Your task to perform on an android device: Open calendar and show me the third week of next month Image 0: 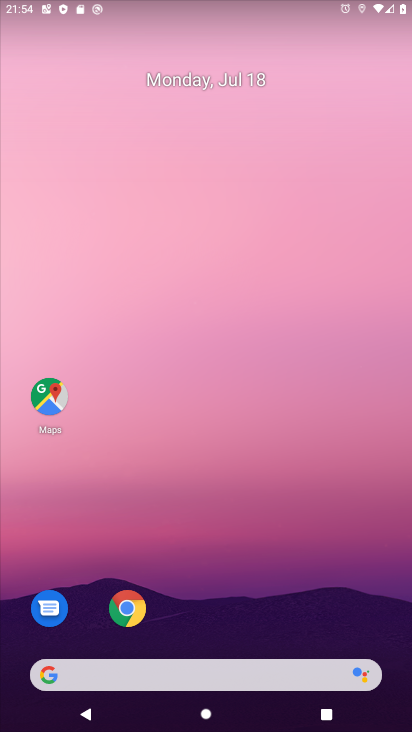
Step 0: drag from (50, 639) to (232, 173)
Your task to perform on an android device: Open calendar and show me the third week of next month Image 1: 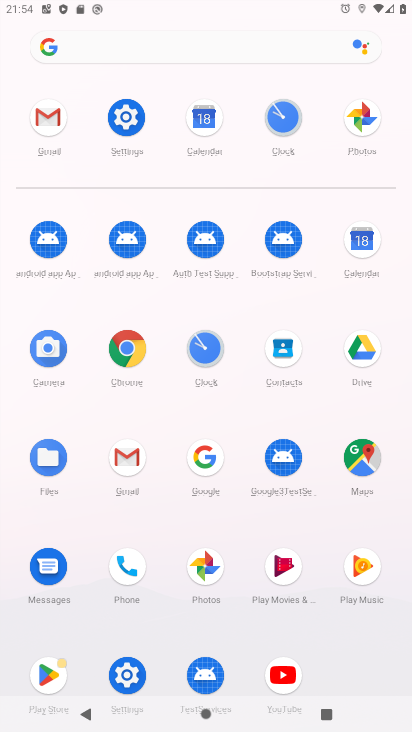
Step 1: click (359, 241)
Your task to perform on an android device: Open calendar and show me the third week of next month Image 2: 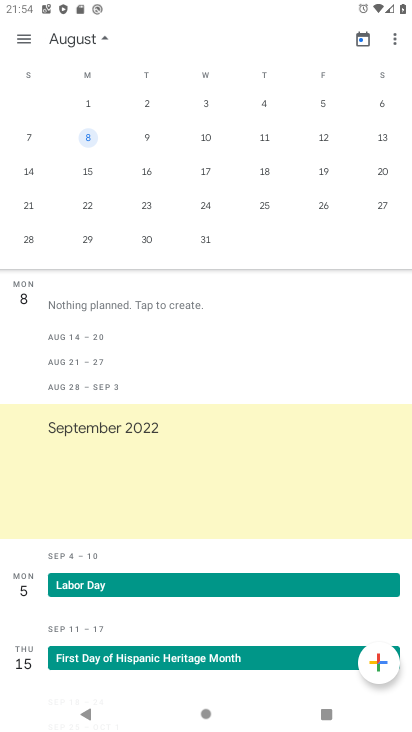
Step 2: click (86, 171)
Your task to perform on an android device: Open calendar and show me the third week of next month Image 3: 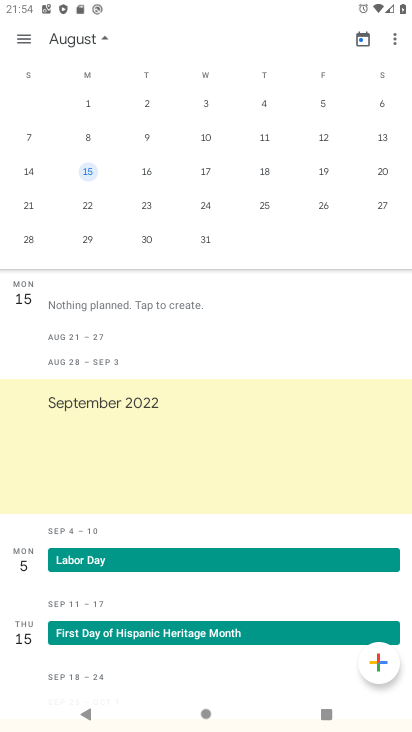
Step 3: task complete